Your task to perform on an android device: change keyboard looks Image 0: 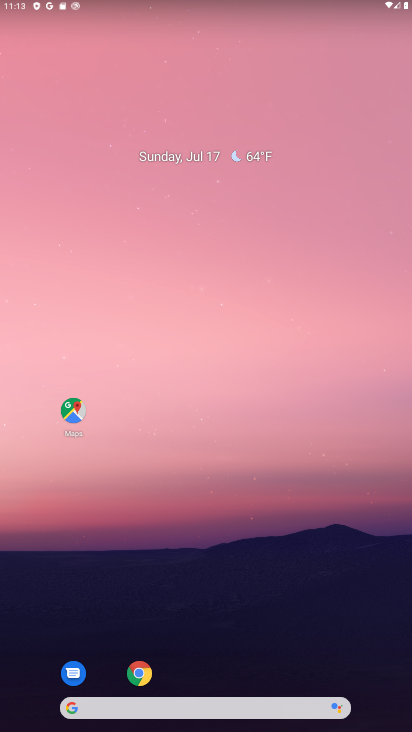
Step 0: drag from (240, 660) to (256, 29)
Your task to perform on an android device: change keyboard looks Image 1: 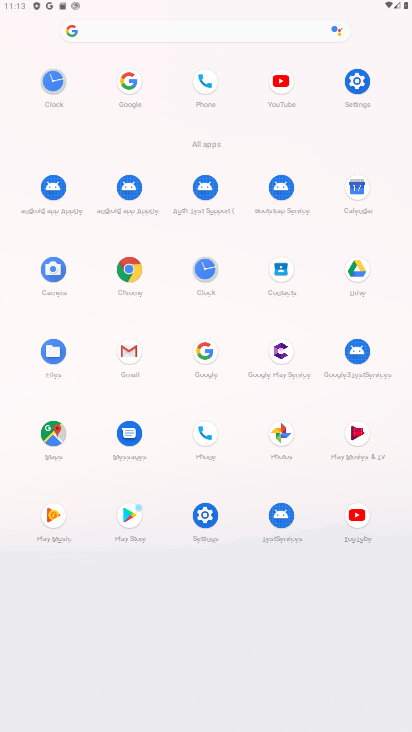
Step 1: click (205, 518)
Your task to perform on an android device: change keyboard looks Image 2: 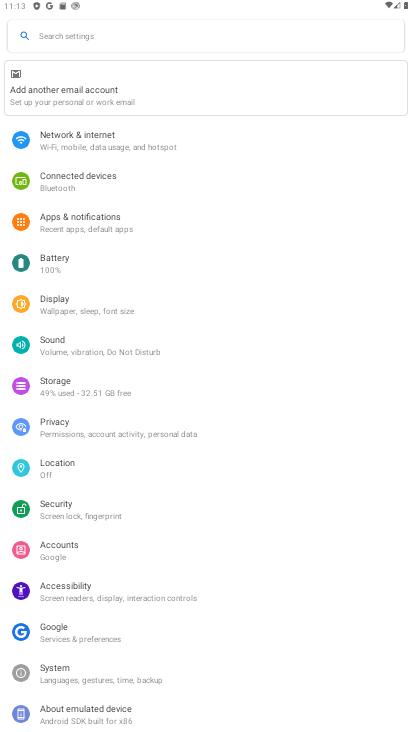
Step 2: drag from (141, 619) to (128, 266)
Your task to perform on an android device: change keyboard looks Image 3: 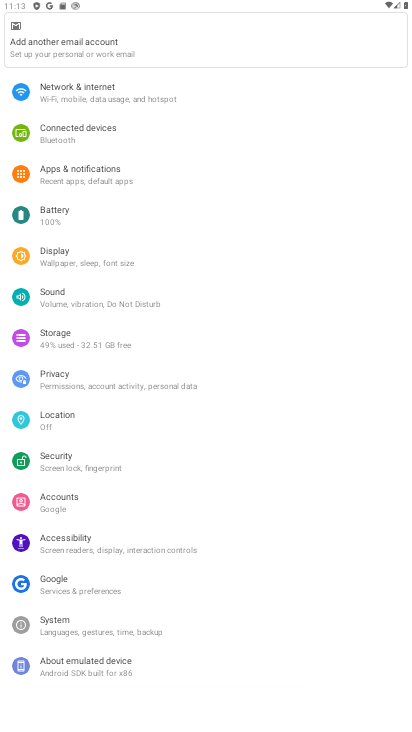
Step 3: click (70, 622)
Your task to perform on an android device: change keyboard looks Image 4: 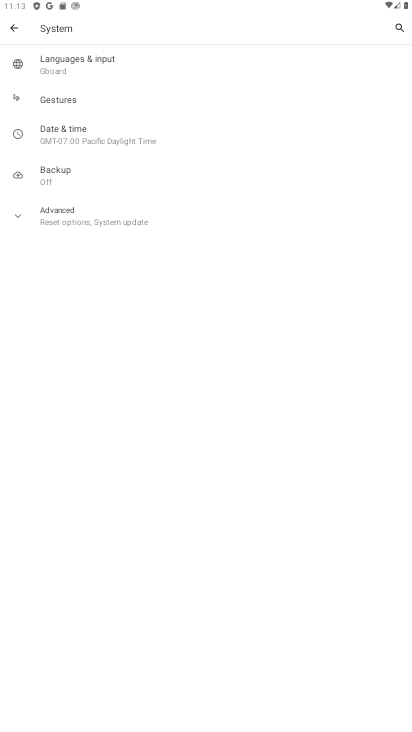
Step 4: click (67, 62)
Your task to perform on an android device: change keyboard looks Image 5: 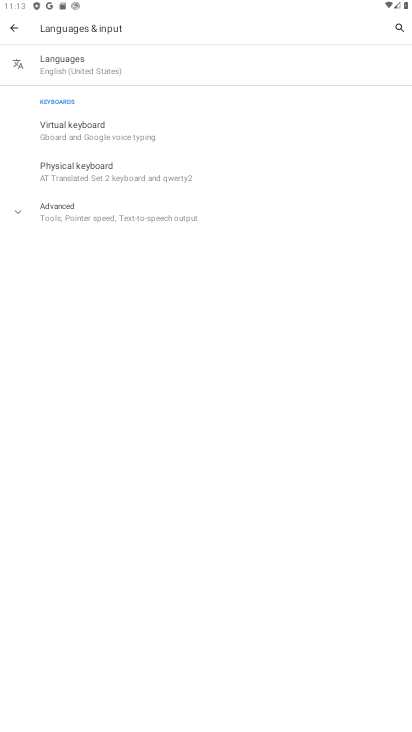
Step 5: click (86, 130)
Your task to perform on an android device: change keyboard looks Image 6: 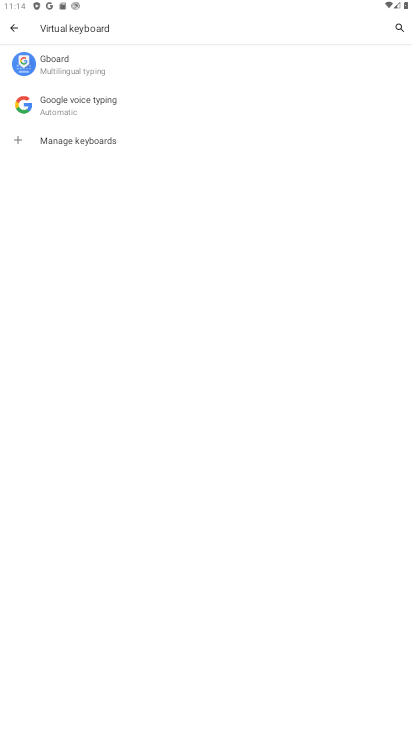
Step 6: click (85, 65)
Your task to perform on an android device: change keyboard looks Image 7: 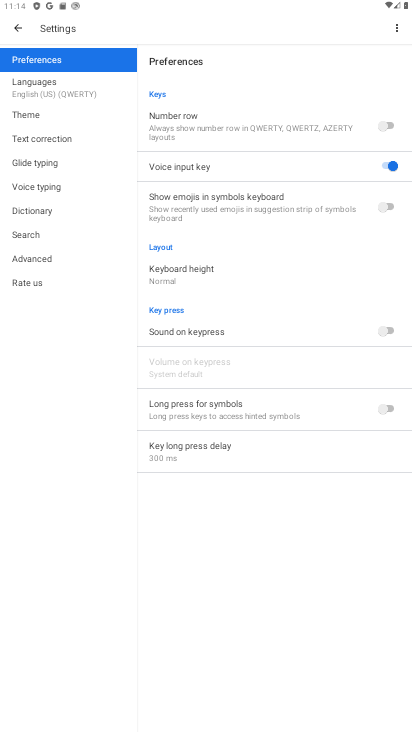
Step 7: click (37, 116)
Your task to perform on an android device: change keyboard looks Image 8: 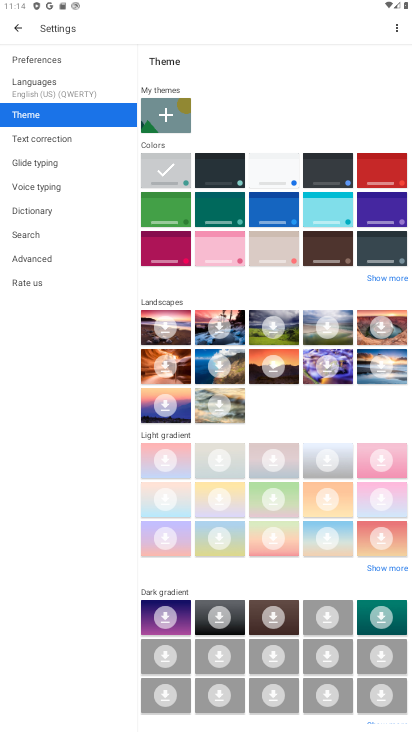
Step 8: click (227, 166)
Your task to perform on an android device: change keyboard looks Image 9: 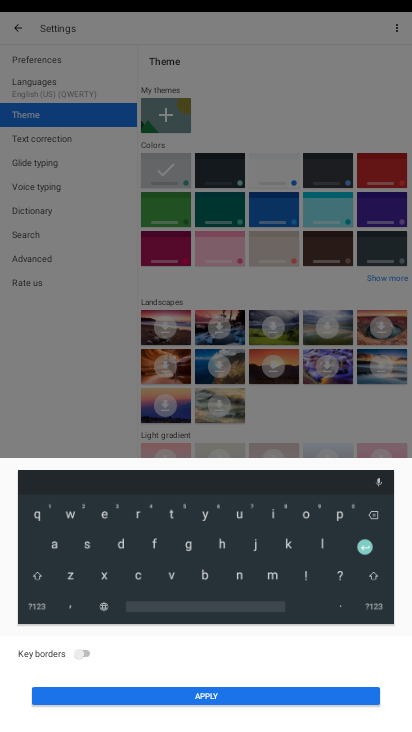
Step 9: click (201, 695)
Your task to perform on an android device: change keyboard looks Image 10: 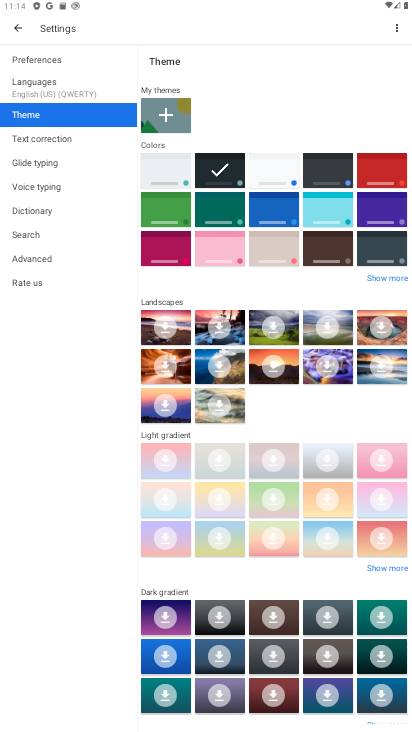
Step 10: task complete